Your task to perform on an android device: Open privacy settings Image 0: 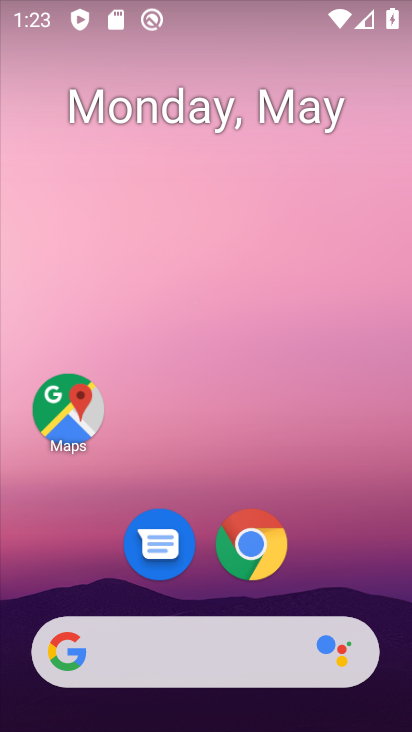
Step 0: drag from (365, 590) to (358, 236)
Your task to perform on an android device: Open privacy settings Image 1: 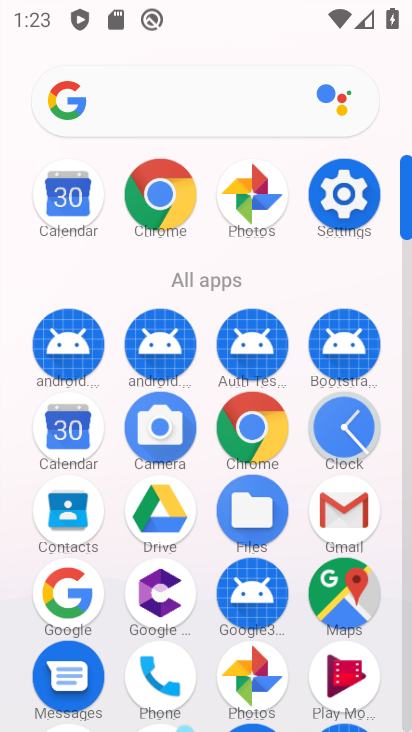
Step 1: click (355, 218)
Your task to perform on an android device: Open privacy settings Image 2: 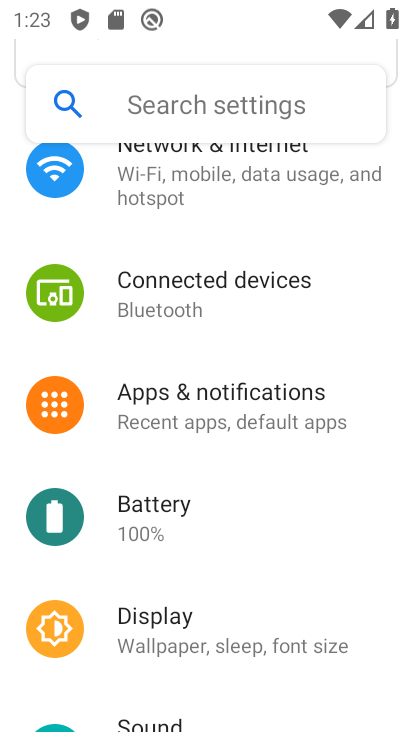
Step 2: drag from (369, 260) to (367, 350)
Your task to perform on an android device: Open privacy settings Image 3: 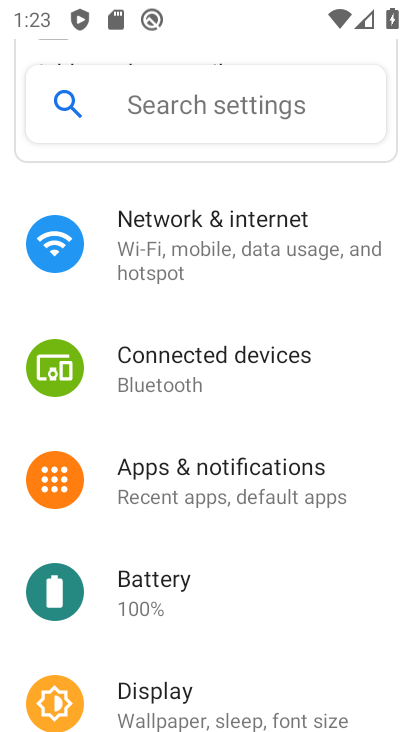
Step 3: drag from (371, 221) to (365, 355)
Your task to perform on an android device: Open privacy settings Image 4: 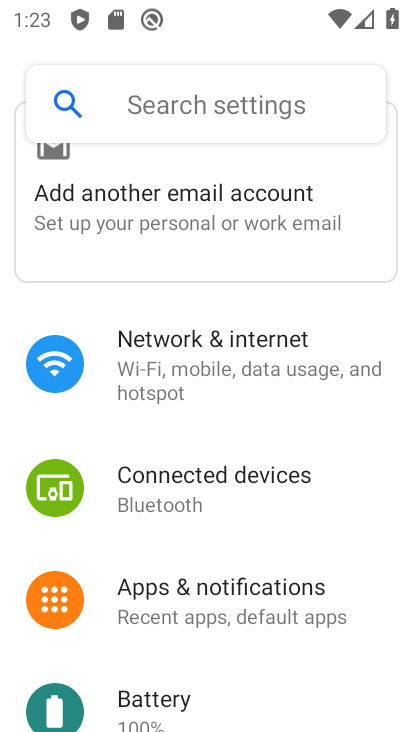
Step 4: drag from (368, 201) to (385, 427)
Your task to perform on an android device: Open privacy settings Image 5: 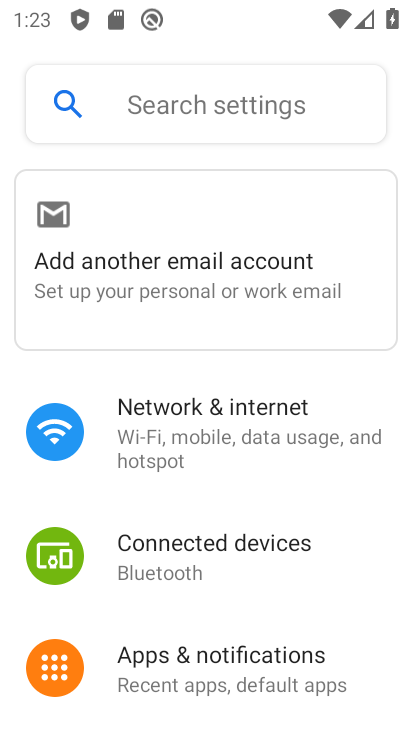
Step 5: drag from (376, 530) to (378, 405)
Your task to perform on an android device: Open privacy settings Image 6: 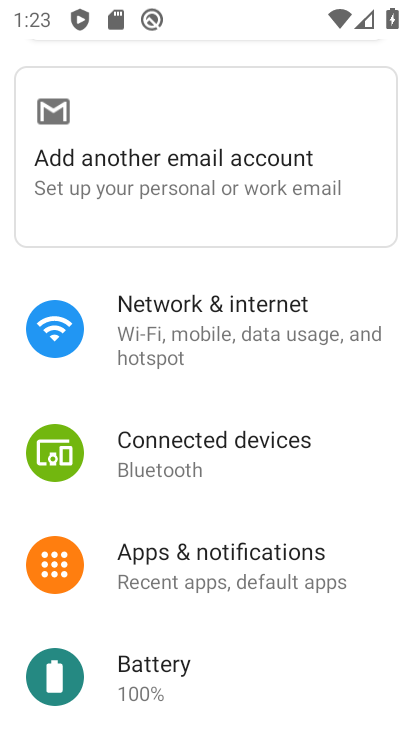
Step 6: drag from (397, 513) to (386, 338)
Your task to perform on an android device: Open privacy settings Image 7: 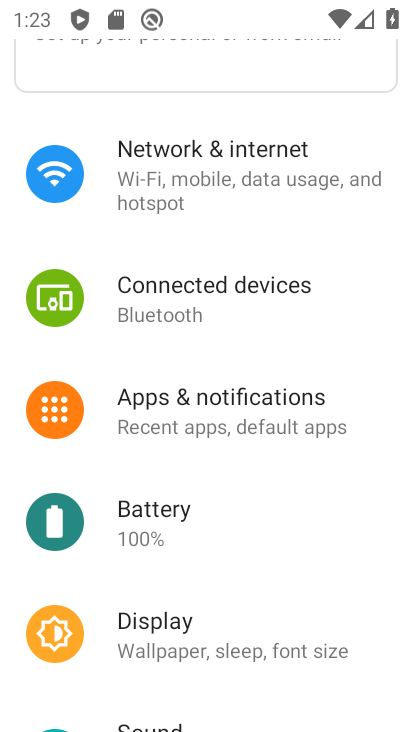
Step 7: drag from (376, 522) to (373, 404)
Your task to perform on an android device: Open privacy settings Image 8: 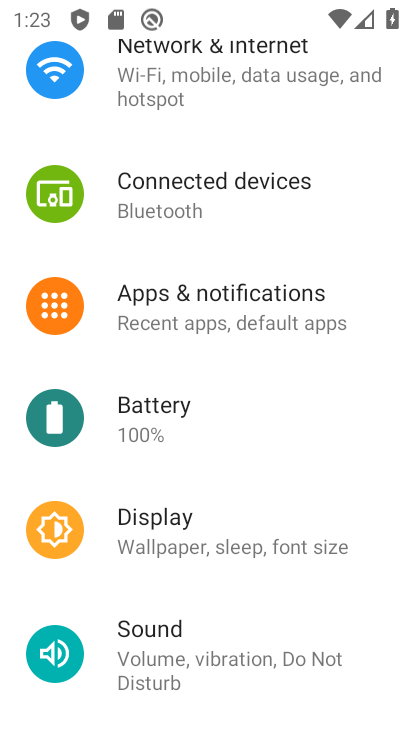
Step 8: drag from (356, 569) to (349, 420)
Your task to perform on an android device: Open privacy settings Image 9: 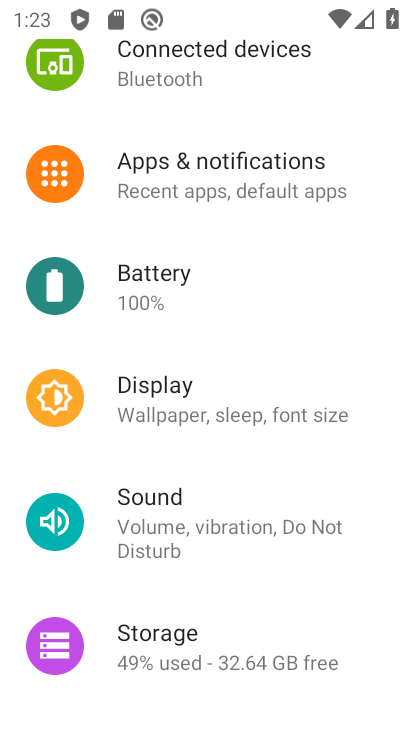
Step 9: drag from (369, 597) to (381, 484)
Your task to perform on an android device: Open privacy settings Image 10: 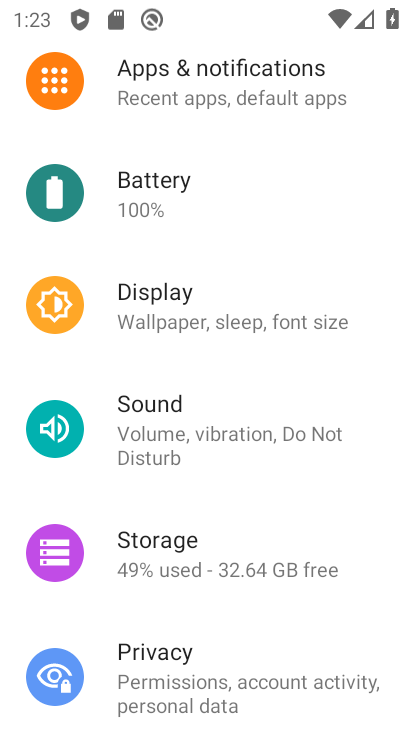
Step 10: drag from (365, 598) to (371, 462)
Your task to perform on an android device: Open privacy settings Image 11: 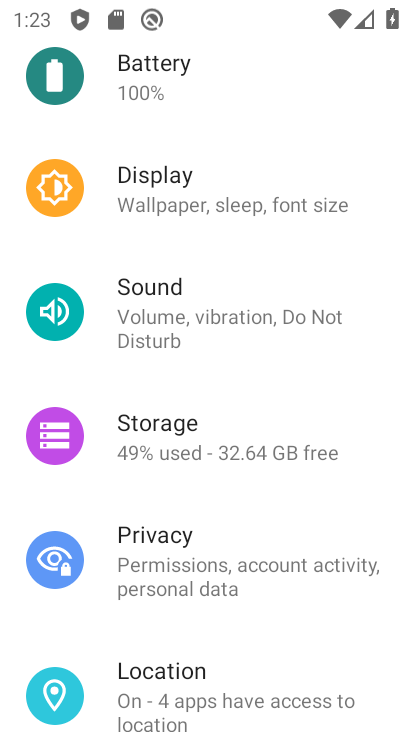
Step 11: drag from (388, 624) to (379, 422)
Your task to perform on an android device: Open privacy settings Image 12: 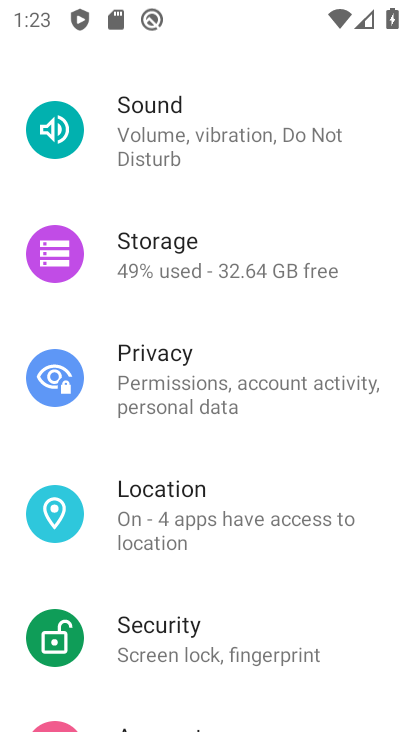
Step 12: click (254, 406)
Your task to perform on an android device: Open privacy settings Image 13: 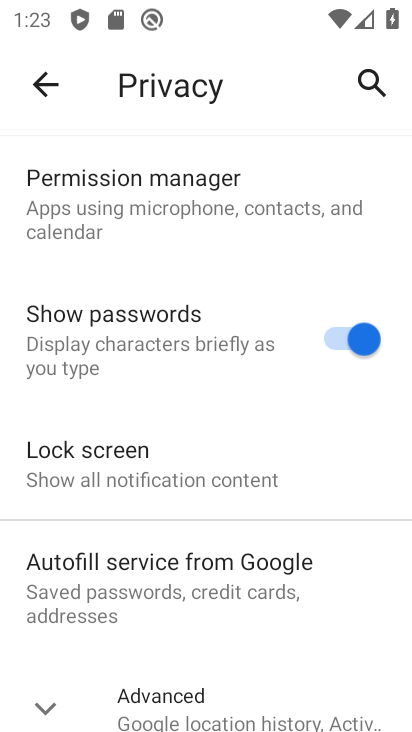
Step 13: task complete